Your task to perform on an android device: delete location history Image 0: 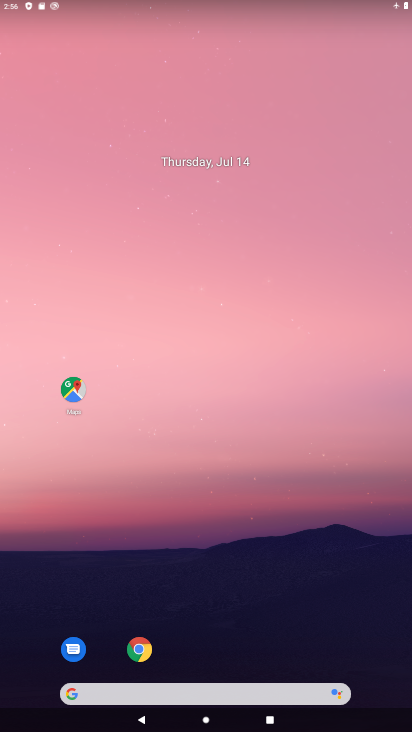
Step 0: drag from (230, 649) to (295, 19)
Your task to perform on an android device: delete location history Image 1: 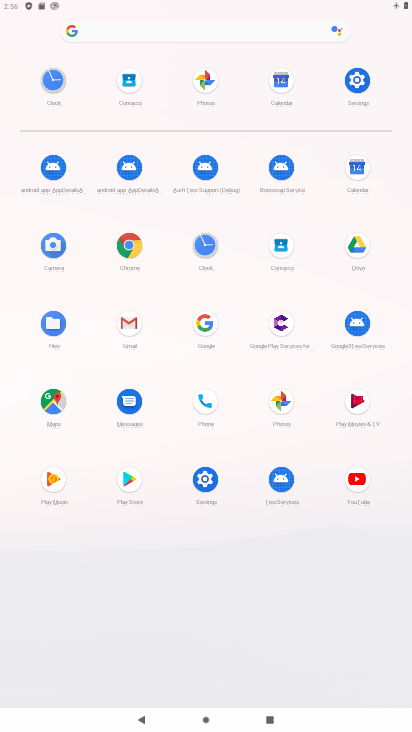
Step 1: click (60, 408)
Your task to perform on an android device: delete location history Image 2: 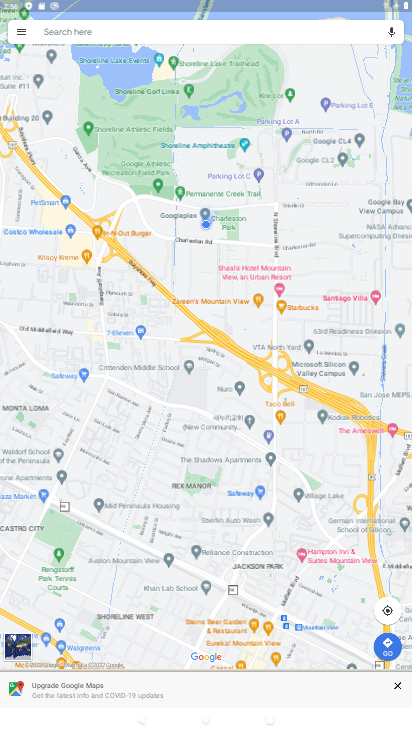
Step 2: click (21, 31)
Your task to perform on an android device: delete location history Image 3: 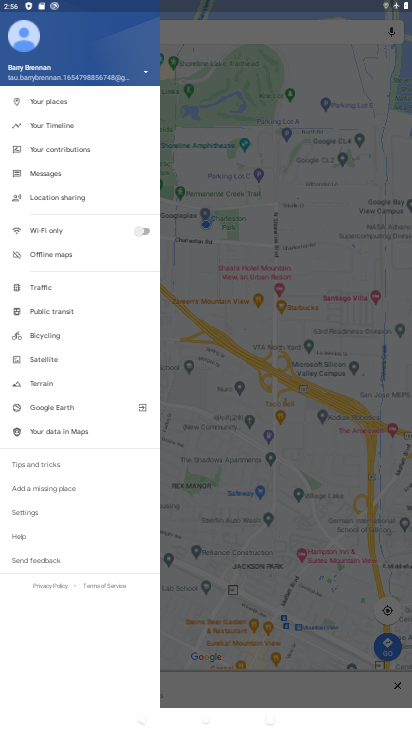
Step 3: click (69, 125)
Your task to perform on an android device: delete location history Image 4: 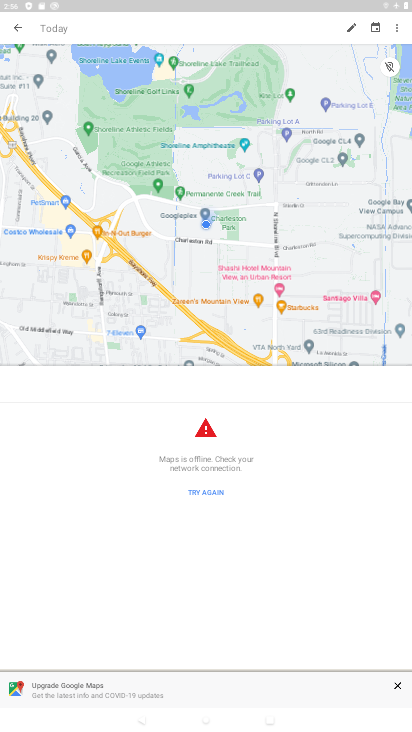
Step 4: click (397, 27)
Your task to perform on an android device: delete location history Image 5: 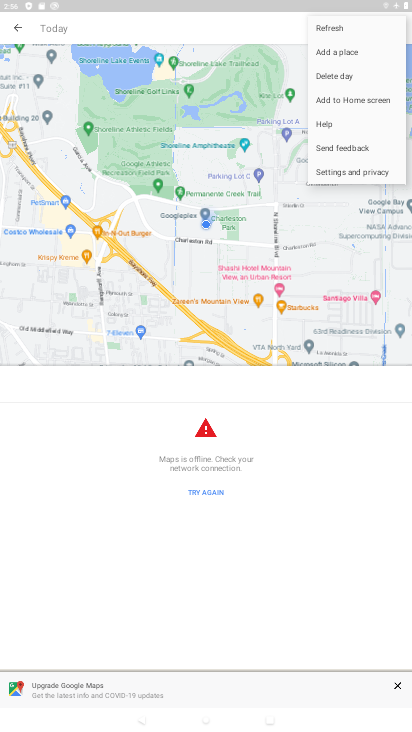
Step 5: click (349, 174)
Your task to perform on an android device: delete location history Image 6: 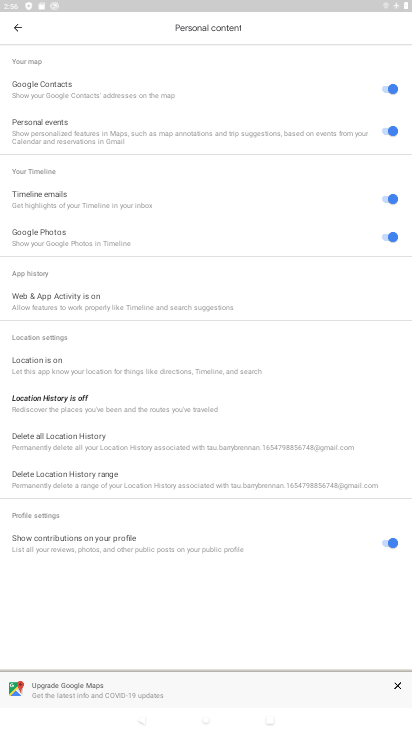
Step 6: click (111, 450)
Your task to perform on an android device: delete location history Image 7: 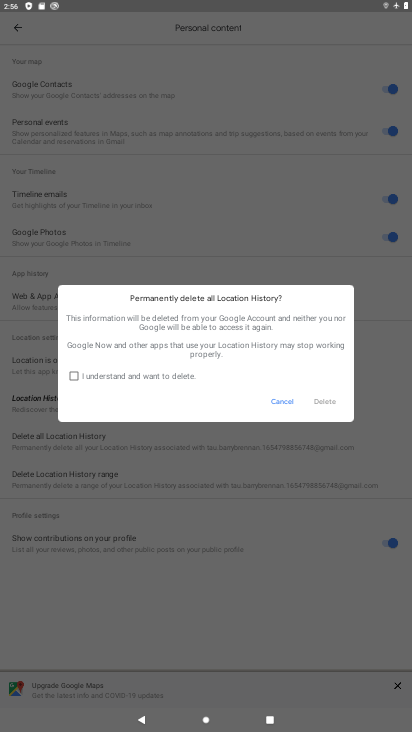
Step 7: click (140, 380)
Your task to perform on an android device: delete location history Image 8: 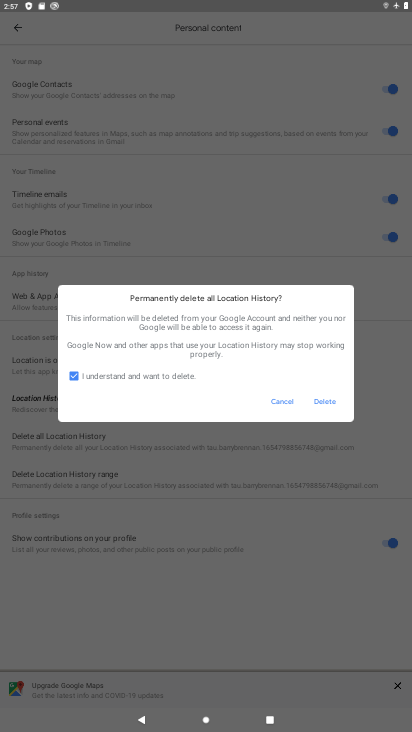
Step 8: click (329, 401)
Your task to perform on an android device: delete location history Image 9: 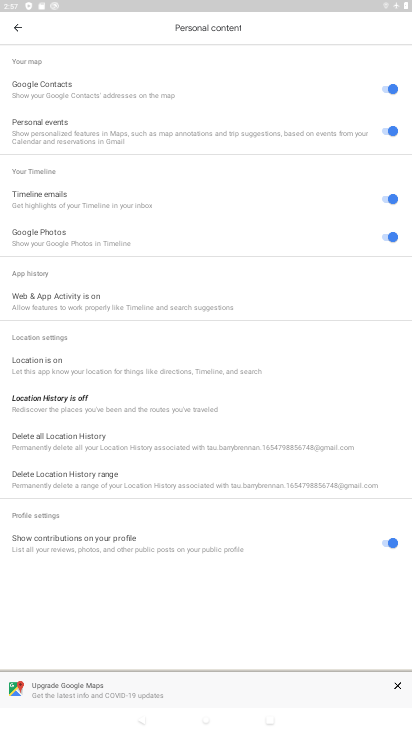
Step 9: task complete